Your task to perform on an android device: check data usage Image 0: 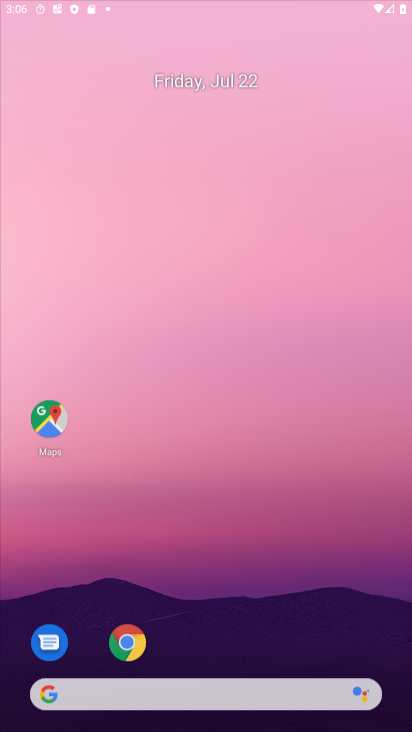
Step 0: press home button
Your task to perform on an android device: check data usage Image 1: 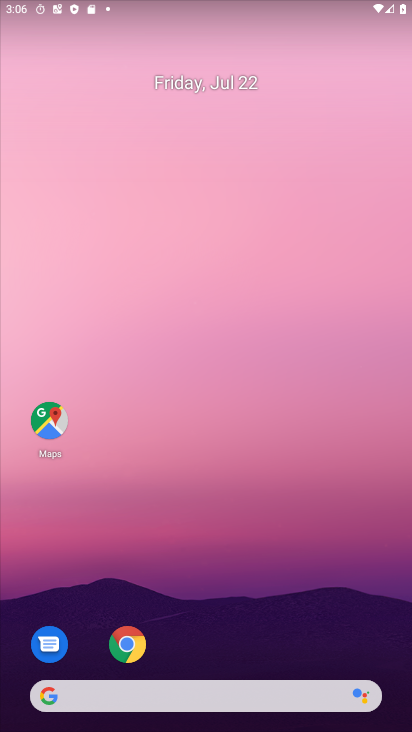
Step 1: drag from (270, 625) to (295, 81)
Your task to perform on an android device: check data usage Image 2: 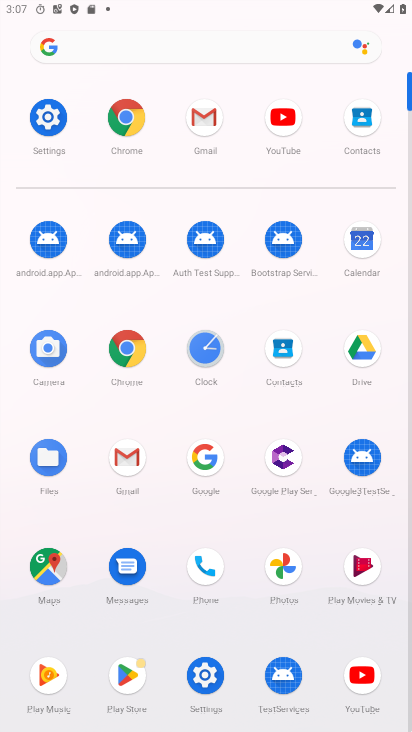
Step 2: click (53, 133)
Your task to perform on an android device: check data usage Image 3: 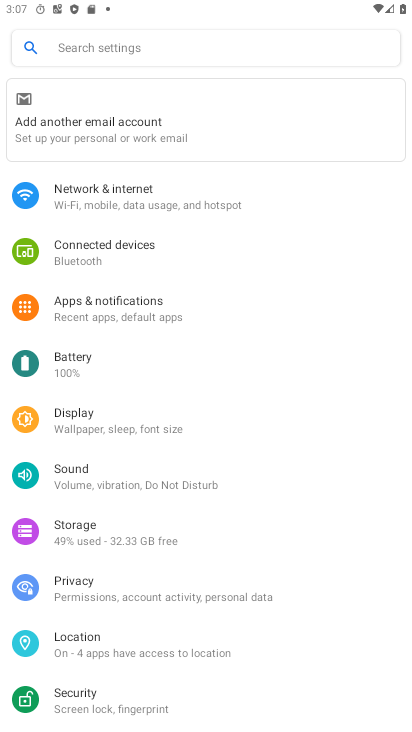
Step 3: click (130, 203)
Your task to perform on an android device: check data usage Image 4: 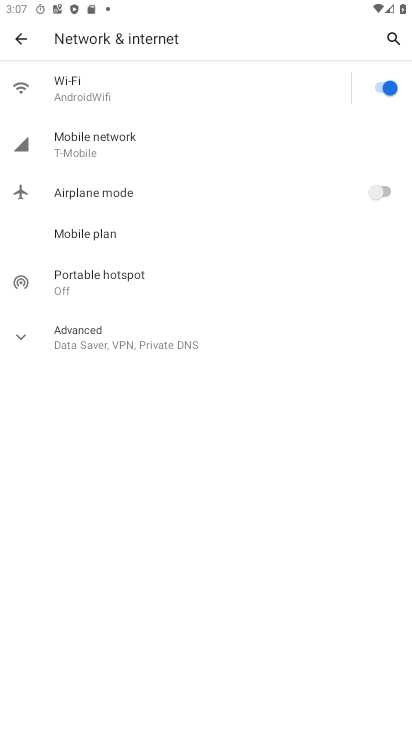
Step 4: click (96, 143)
Your task to perform on an android device: check data usage Image 5: 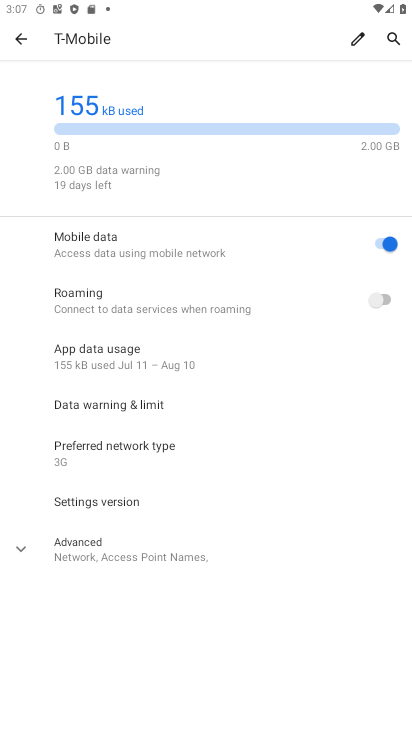
Step 5: click (93, 345)
Your task to perform on an android device: check data usage Image 6: 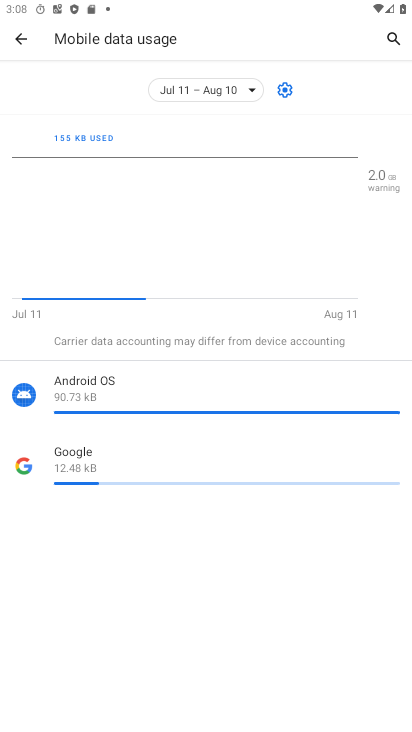
Step 6: task complete